Your task to perform on an android device: Show me popular videos on Youtube Image 0: 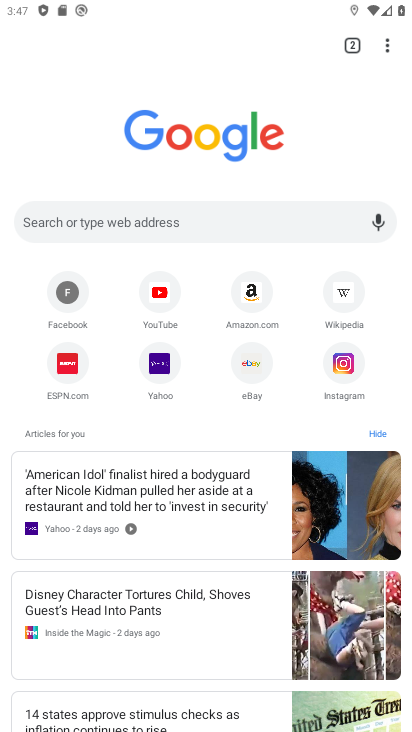
Step 0: press home button
Your task to perform on an android device: Show me popular videos on Youtube Image 1: 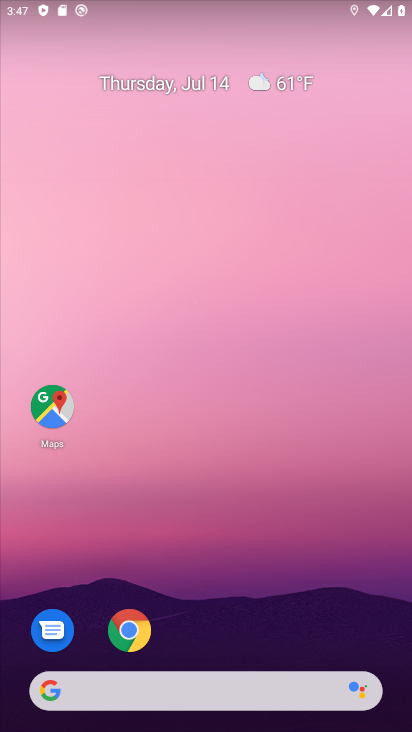
Step 1: drag from (238, 638) to (210, 128)
Your task to perform on an android device: Show me popular videos on Youtube Image 2: 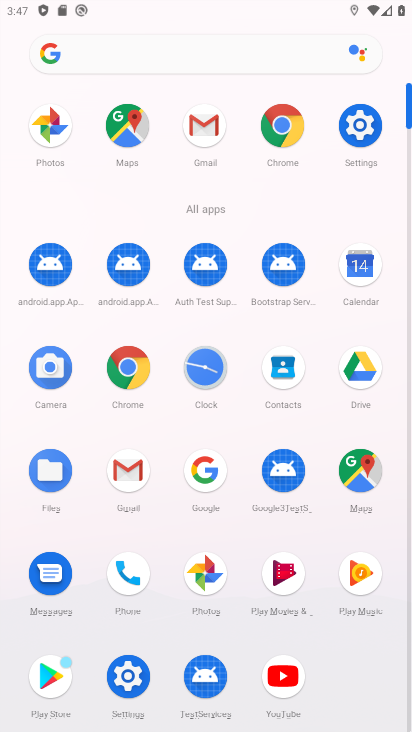
Step 2: click (288, 681)
Your task to perform on an android device: Show me popular videos on Youtube Image 3: 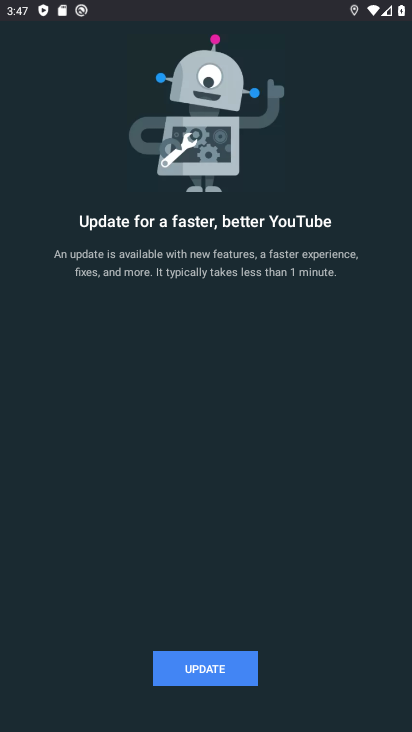
Step 3: click (201, 674)
Your task to perform on an android device: Show me popular videos on Youtube Image 4: 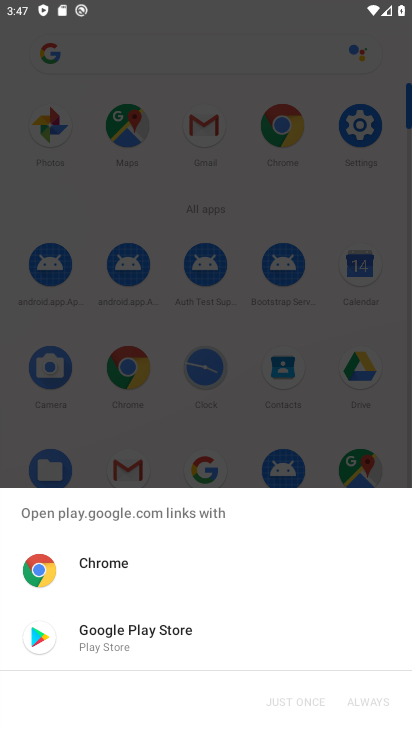
Step 4: click (196, 649)
Your task to perform on an android device: Show me popular videos on Youtube Image 5: 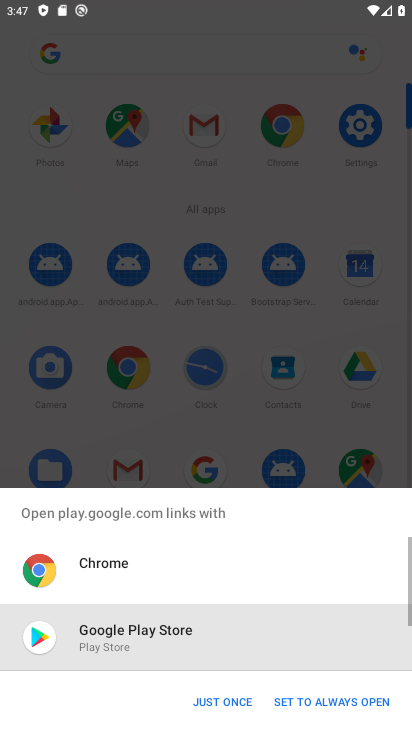
Step 5: click (227, 707)
Your task to perform on an android device: Show me popular videos on Youtube Image 6: 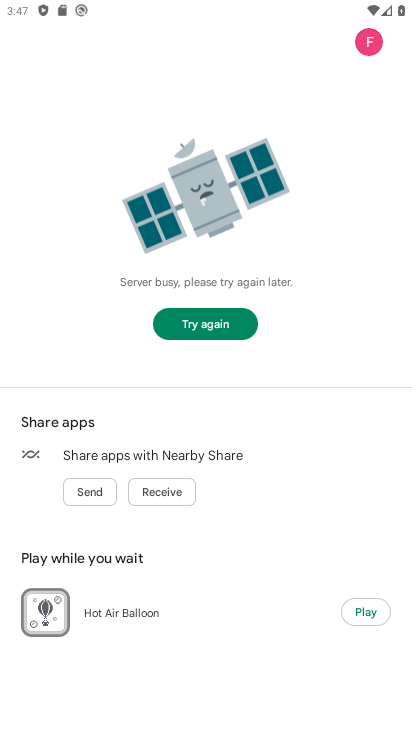
Step 6: task complete